Your task to perform on an android device: open sync settings in chrome Image 0: 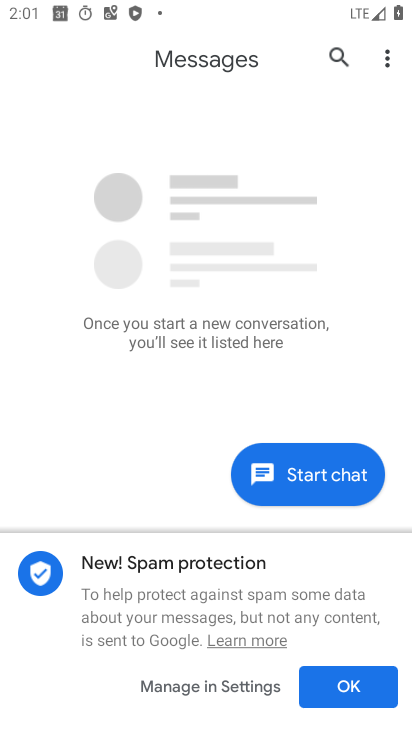
Step 0: press home button
Your task to perform on an android device: open sync settings in chrome Image 1: 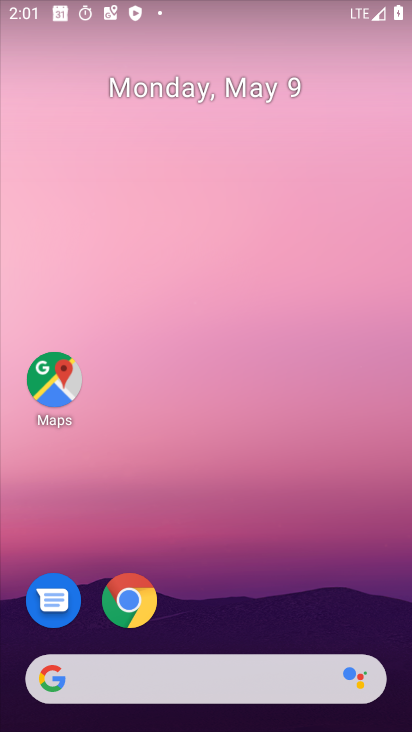
Step 1: drag from (278, 570) to (247, 248)
Your task to perform on an android device: open sync settings in chrome Image 2: 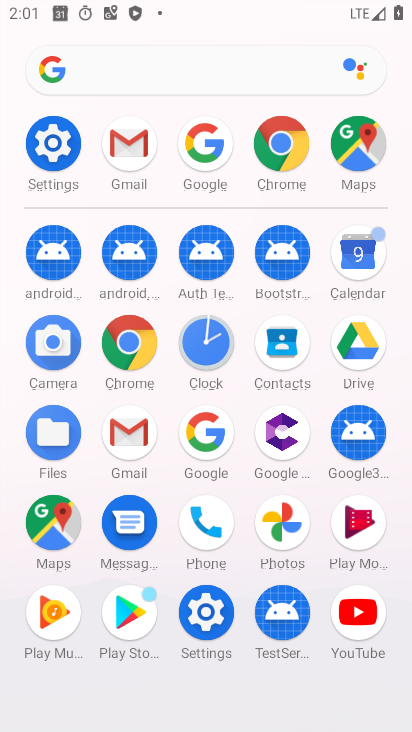
Step 2: click (223, 617)
Your task to perform on an android device: open sync settings in chrome Image 3: 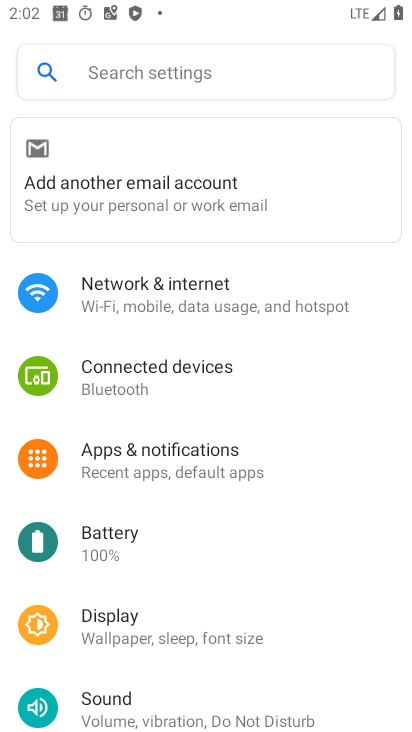
Step 3: press home button
Your task to perform on an android device: open sync settings in chrome Image 4: 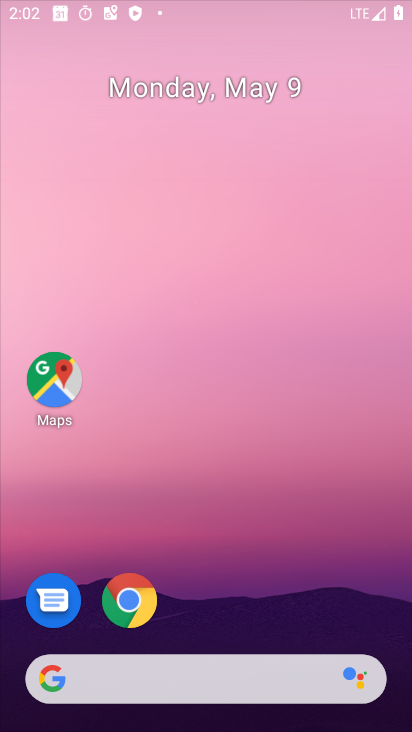
Step 4: drag from (297, 540) to (259, 196)
Your task to perform on an android device: open sync settings in chrome Image 5: 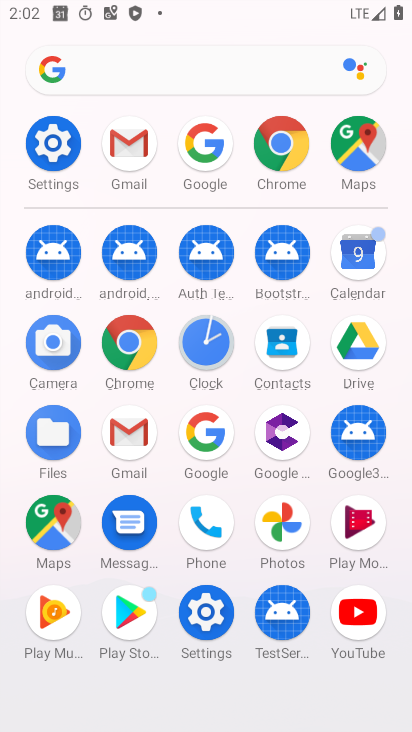
Step 5: click (135, 353)
Your task to perform on an android device: open sync settings in chrome Image 6: 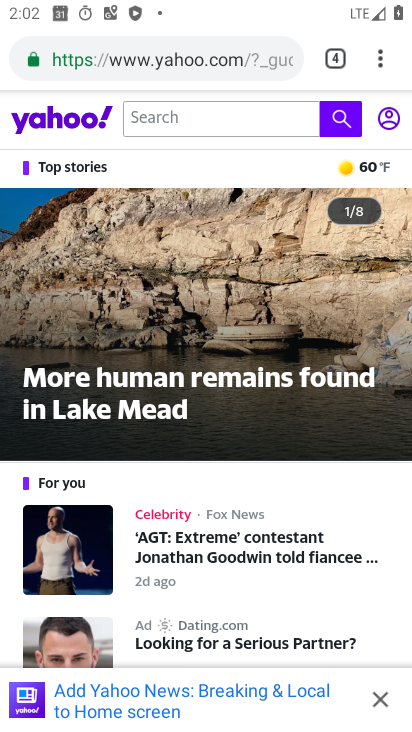
Step 6: click (375, 59)
Your task to perform on an android device: open sync settings in chrome Image 7: 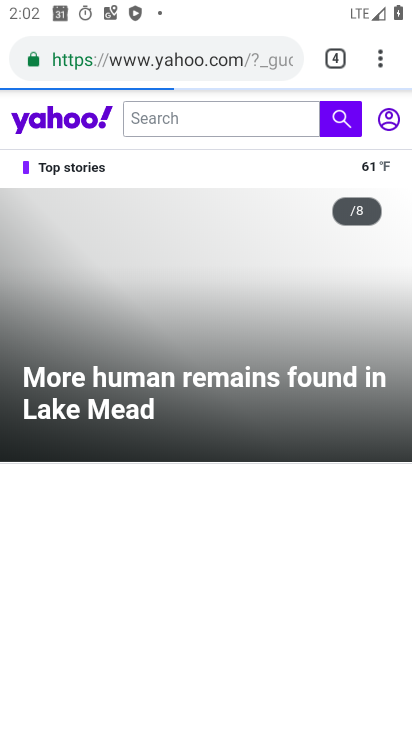
Step 7: click (378, 63)
Your task to perform on an android device: open sync settings in chrome Image 8: 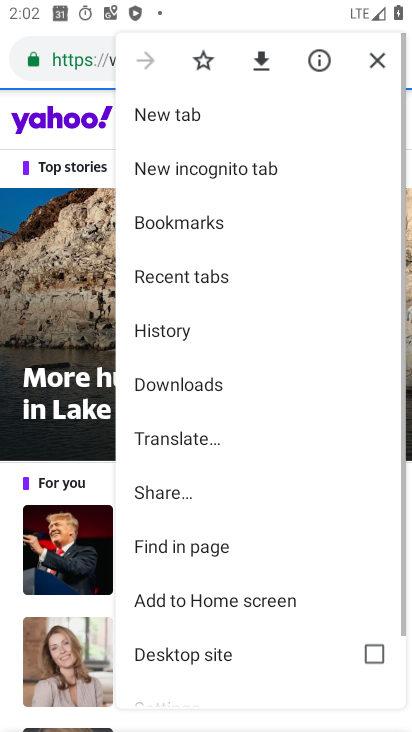
Step 8: drag from (238, 531) to (253, 283)
Your task to perform on an android device: open sync settings in chrome Image 9: 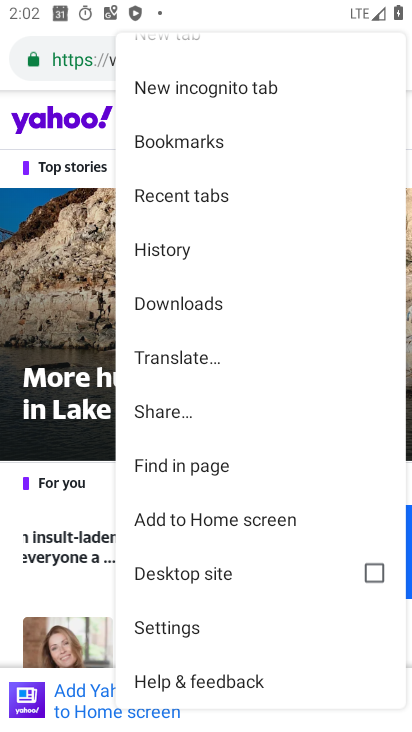
Step 9: click (191, 633)
Your task to perform on an android device: open sync settings in chrome Image 10: 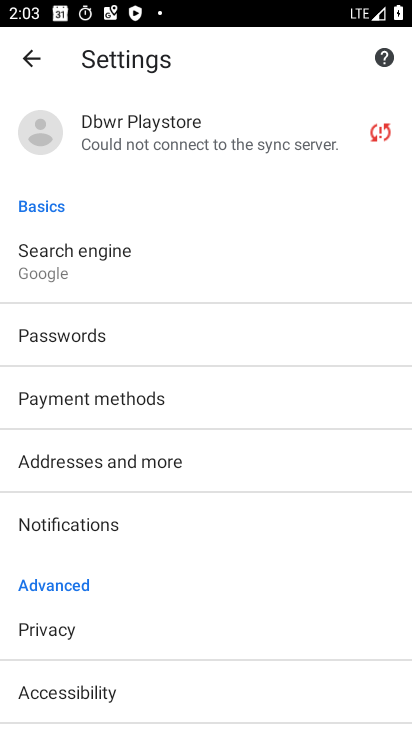
Step 10: click (262, 135)
Your task to perform on an android device: open sync settings in chrome Image 11: 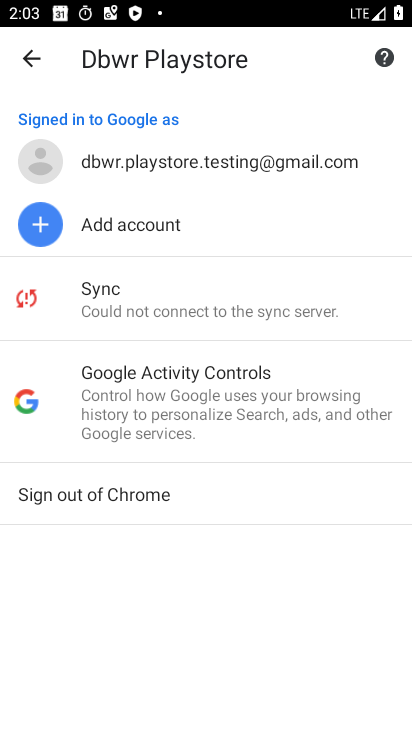
Step 11: click (211, 324)
Your task to perform on an android device: open sync settings in chrome Image 12: 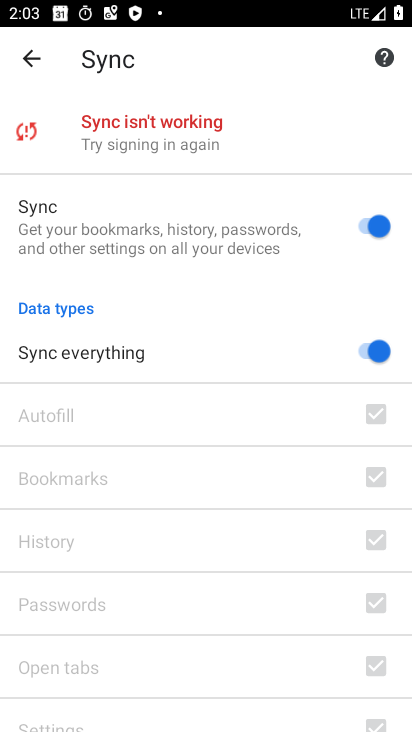
Step 12: click (219, 156)
Your task to perform on an android device: open sync settings in chrome Image 13: 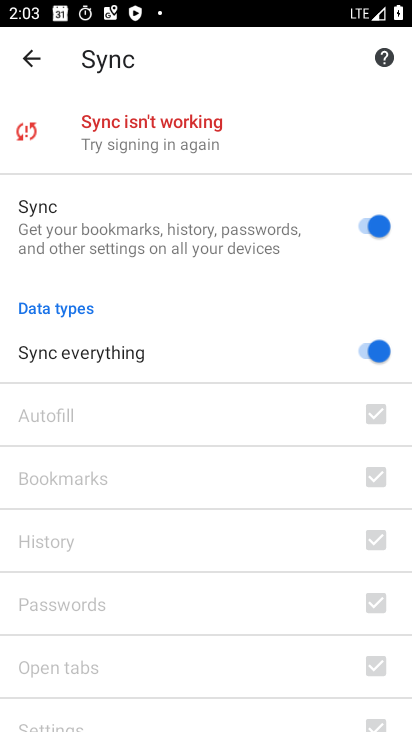
Step 13: task complete